Your task to perform on an android device: change the clock style Image 0: 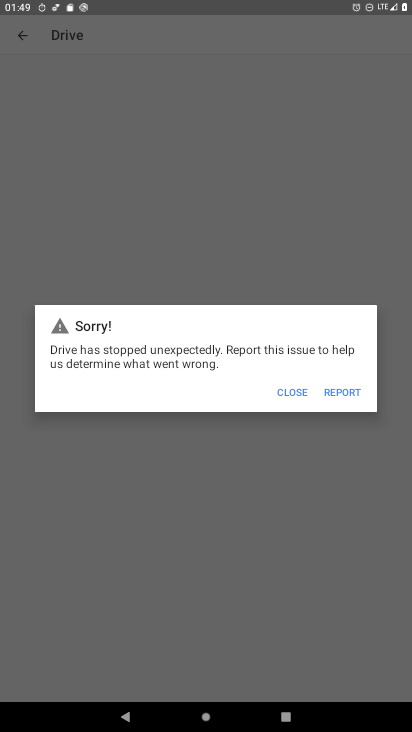
Step 0: press home button
Your task to perform on an android device: change the clock style Image 1: 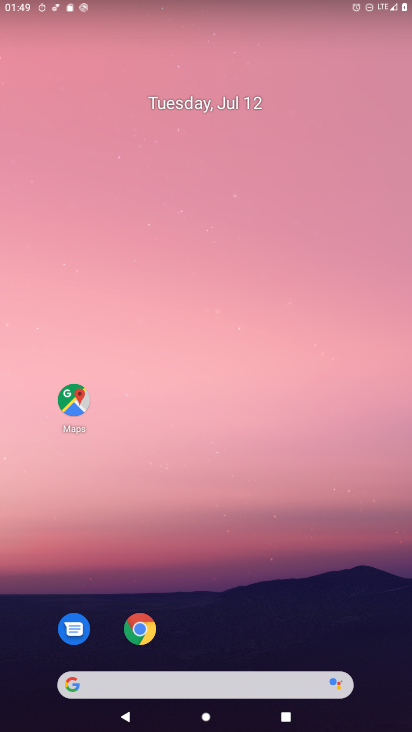
Step 1: drag from (53, 674) to (335, 43)
Your task to perform on an android device: change the clock style Image 2: 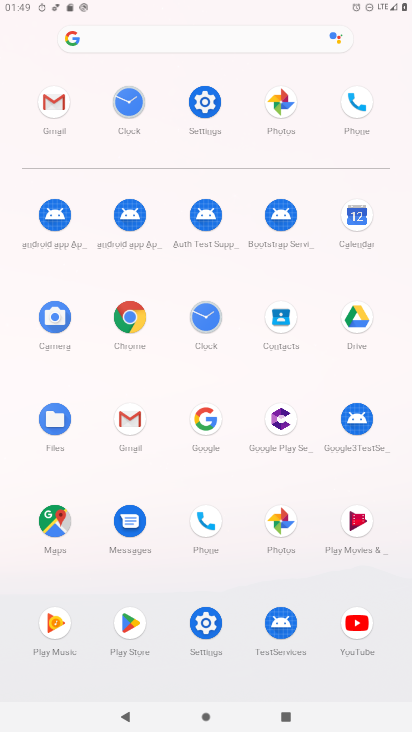
Step 2: click (208, 329)
Your task to perform on an android device: change the clock style Image 3: 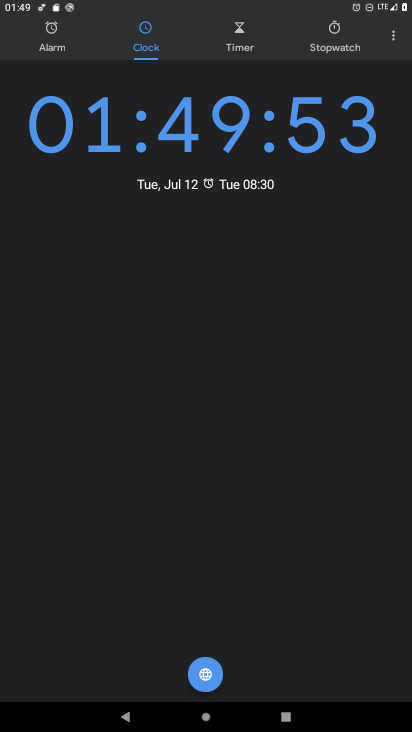
Step 3: click (388, 36)
Your task to perform on an android device: change the clock style Image 4: 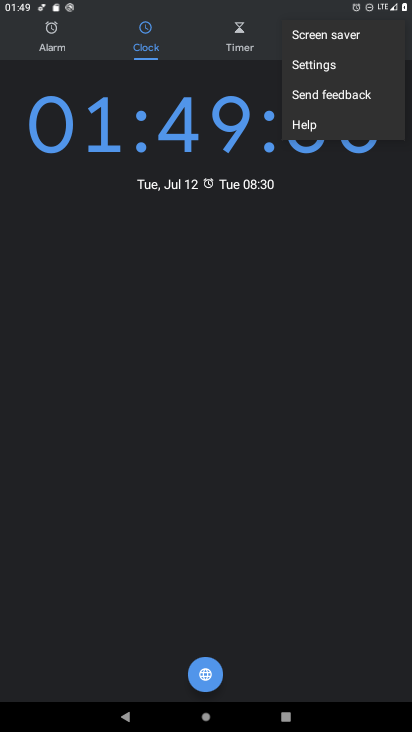
Step 4: click (303, 74)
Your task to perform on an android device: change the clock style Image 5: 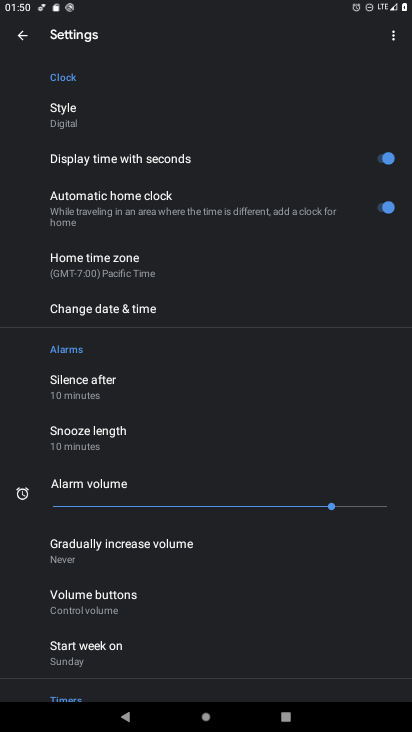
Step 5: click (88, 114)
Your task to perform on an android device: change the clock style Image 6: 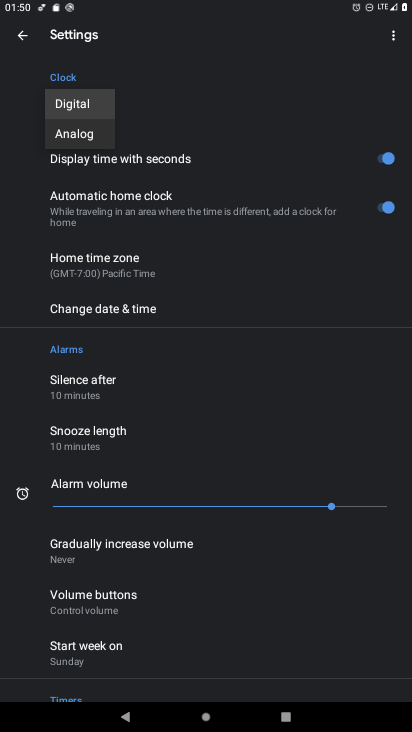
Step 6: click (75, 127)
Your task to perform on an android device: change the clock style Image 7: 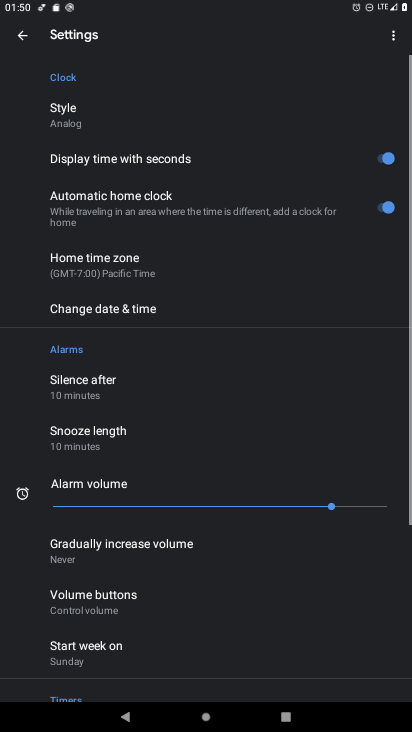
Step 7: click (75, 130)
Your task to perform on an android device: change the clock style Image 8: 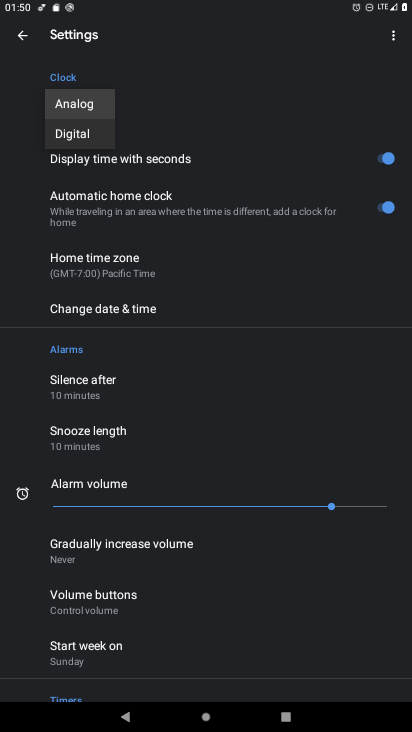
Step 8: click (59, 130)
Your task to perform on an android device: change the clock style Image 9: 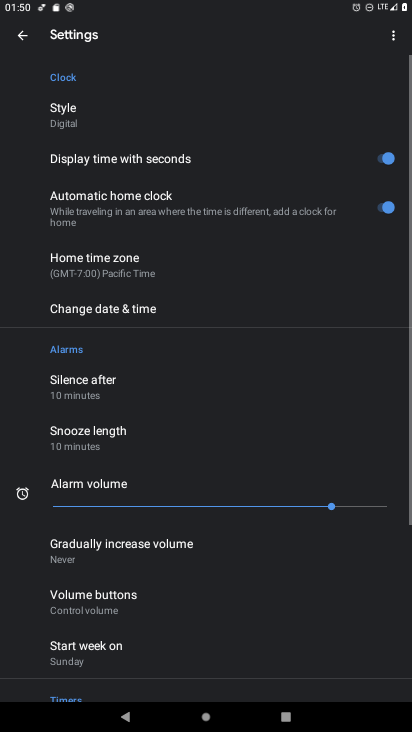
Step 9: task complete